Your task to perform on an android device: turn notification dots on Image 0: 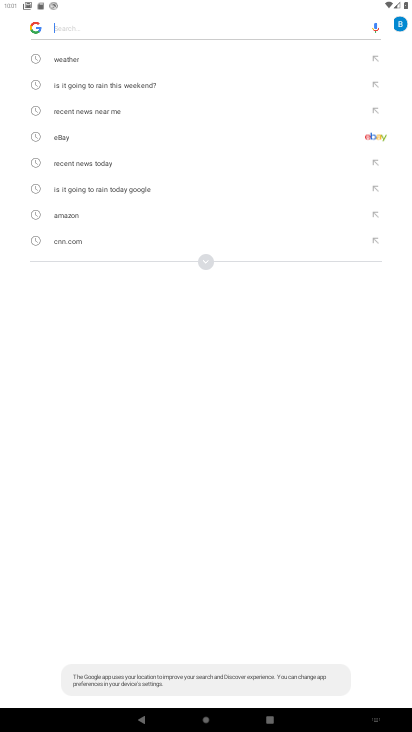
Step 0: press home button
Your task to perform on an android device: turn notification dots on Image 1: 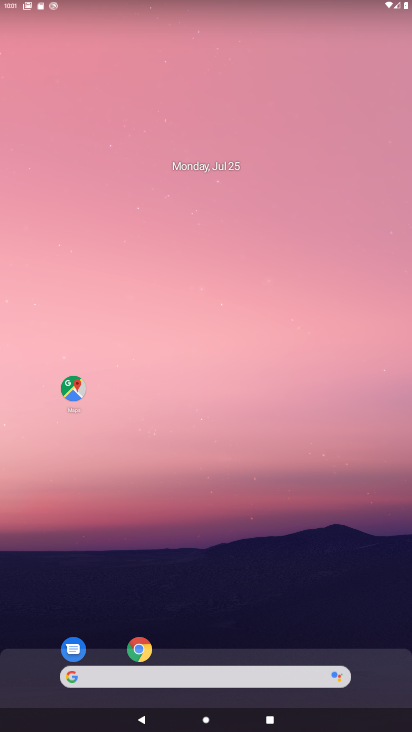
Step 1: drag from (379, 649) to (324, 241)
Your task to perform on an android device: turn notification dots on Image 2: 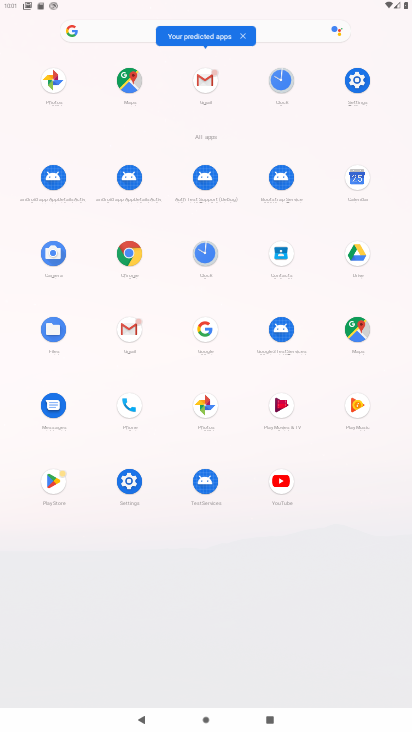
Step 2: click (128, 479)
Your task to perform on an android device: turn notification dots on Image 3: 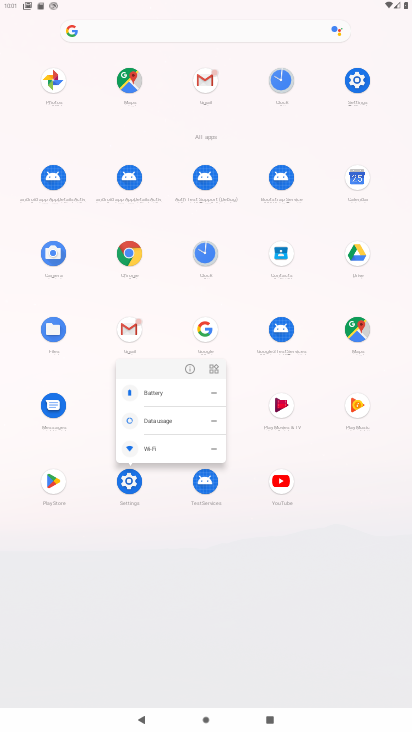
Step 3: click (129, 480)
Your task to perform on an android device: turn notification dots on Image 4: 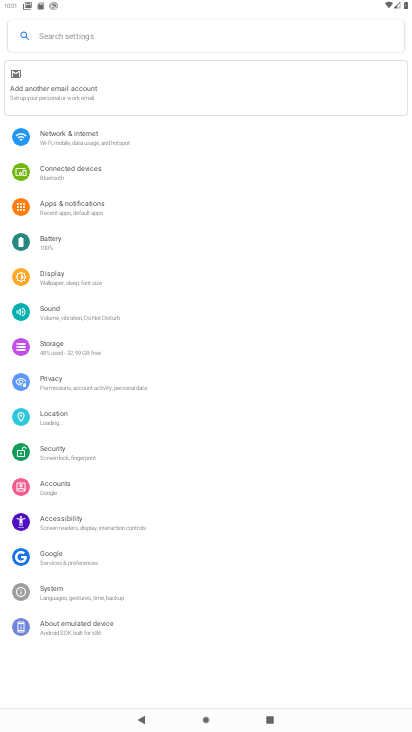
Step 4: click (62, 200)
Your task to perform on an android device: turn notification dots on Image 5: 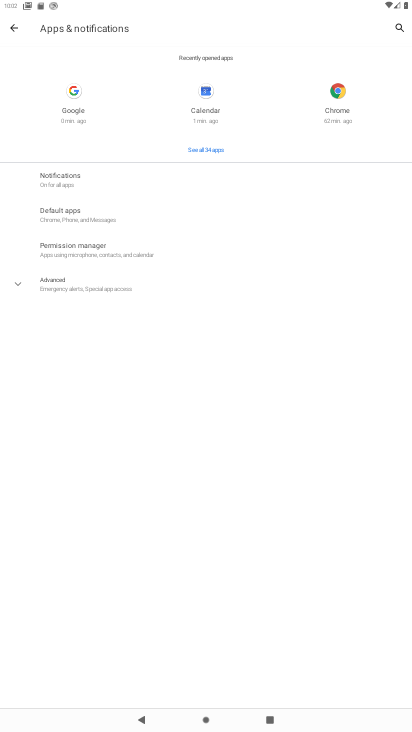
Step 5: click (53, 177)
Your task to perform on an android device: turn notification dots on Image 6: 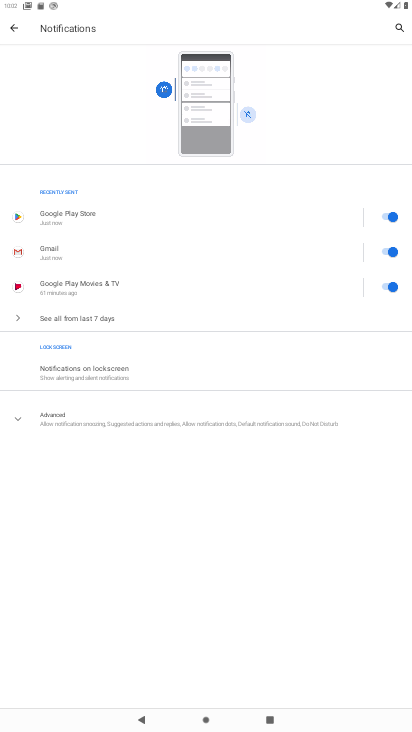
Step 6: click (22, 416)
Your task to perform on an android device: turn notification dots on Image 7: 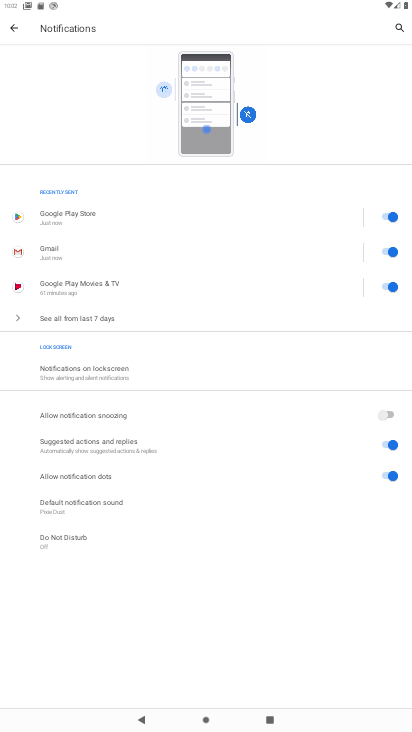
Step 7: task complete